Your task to perform on an android device: delete a single message in the gmail app Image 0: 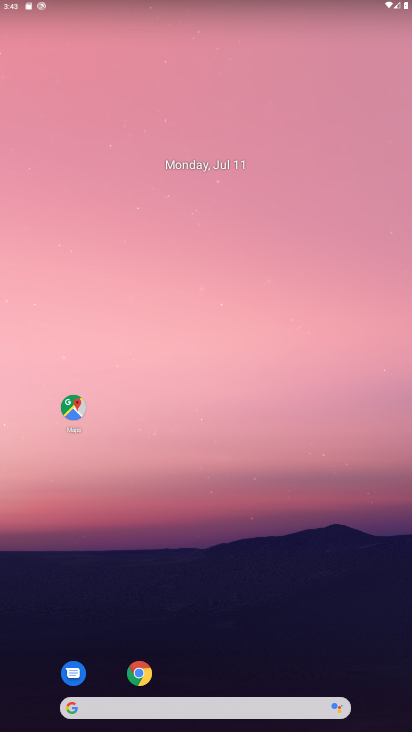
Step 0: drag from (306, 631) to (238, 0)
Your task to perform on an android device: delete a single message in the gmail app Image 1: 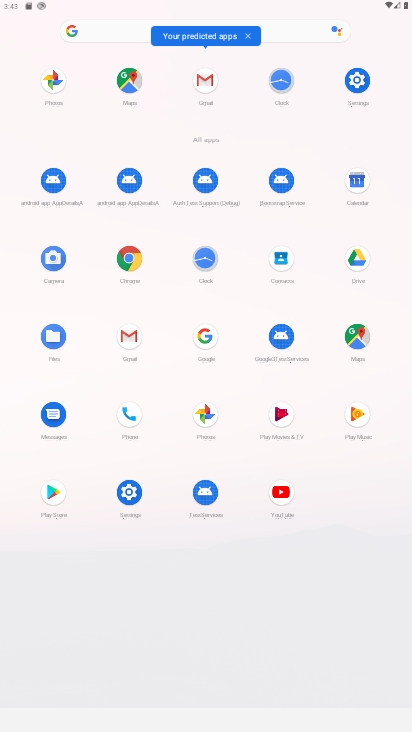
Step 1: click (123, 332)
Your task to perform on an android device: delete a single message in the gmail app Image 2: 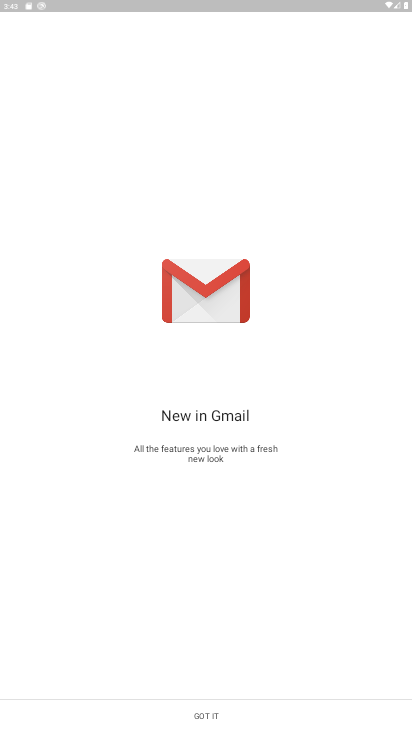
Step 2: click (199, 714)
Your task to perform on an android device: delete a single message in the gmail app Image 3: 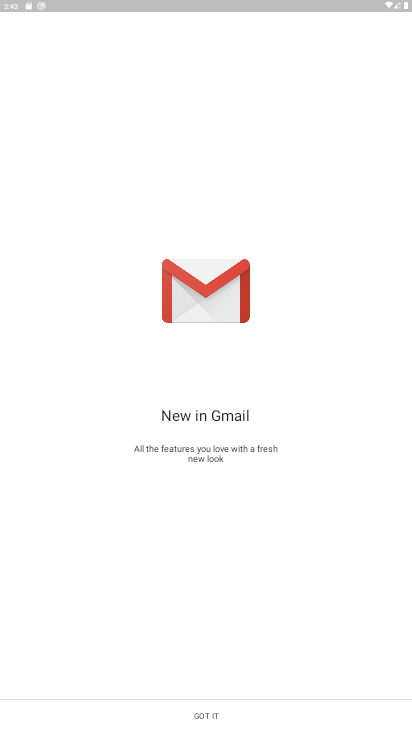
Step 3: click (199, 714)
Your task to perform on an android device: delete a single message in the gmail app Image 4: 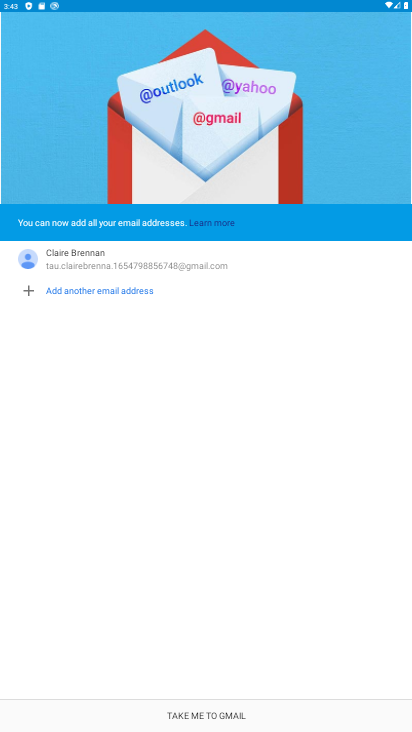
Step 4: click (196, 714)
Your task to perform on an android device: delete a single message in the gmail app Image 5: 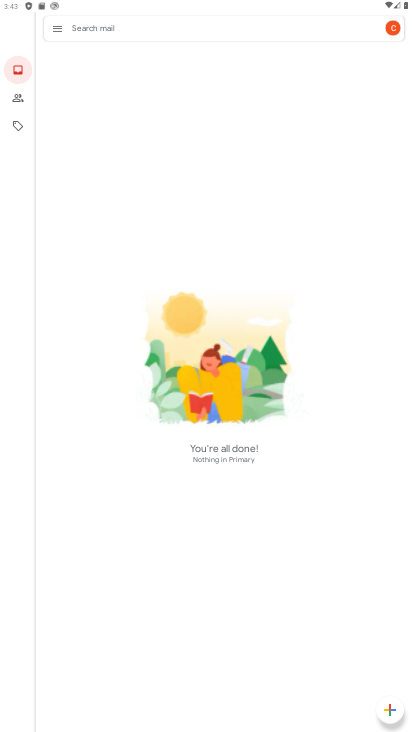
Step 5: task complete